Your task to perform on an android device: all mails in gmail Image 0: 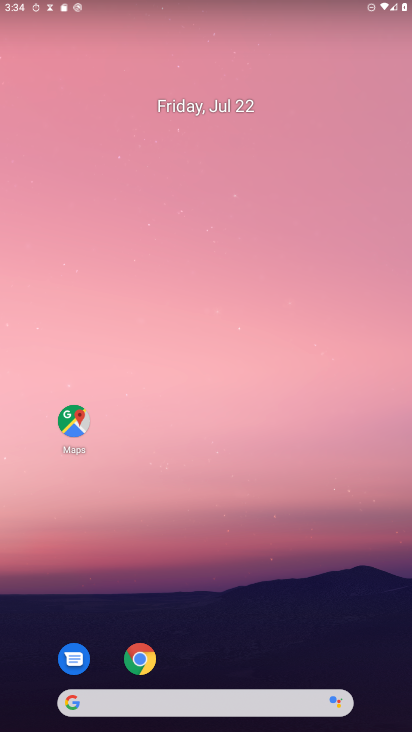
Step 0: drag from (259, 548) to (232, 60)
Your task to perform on an android device: all mails in gmail Image 1: 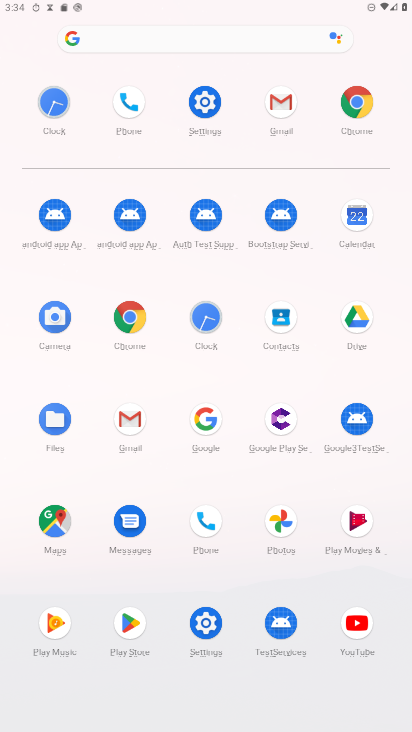
Step 1: click (288, 98)
Your task to perform on an android device: all mails in gmail Image 2: 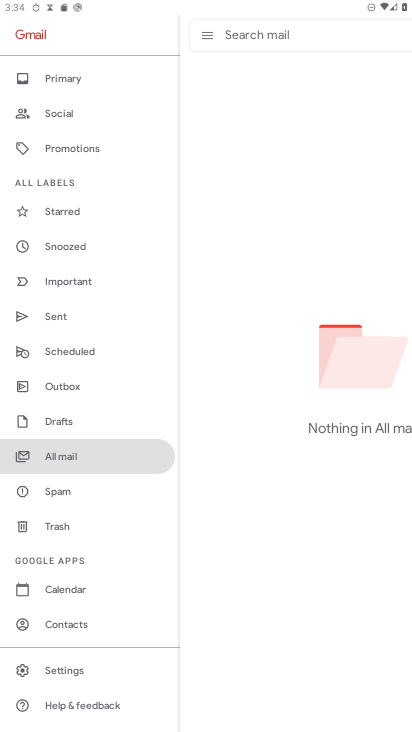
Step 2: click (119, 468)
Your task to perform on an android device: all mails in gmail Image 3: 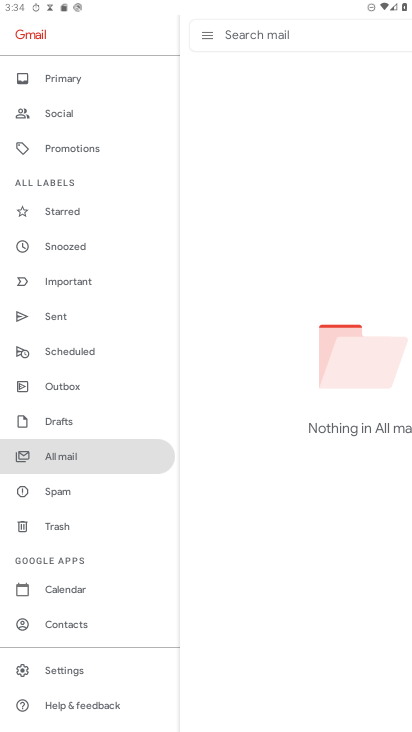
Step 3: task complete